Your task to perform on an android device: Check the weather Image 0: 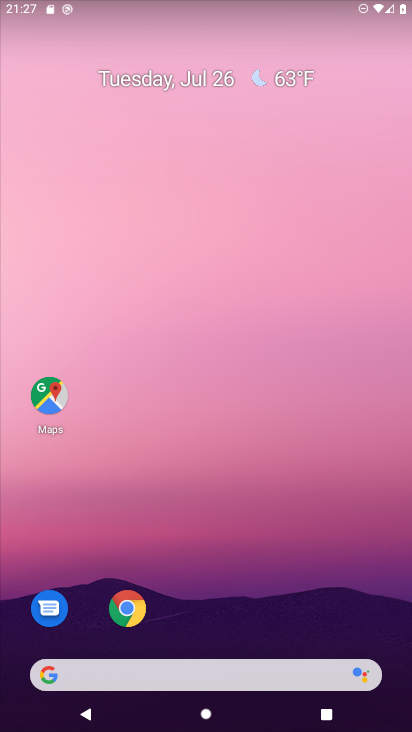
Step 0: click (133, 681)
Your task to perform on an android device: Check the weather Image 1: 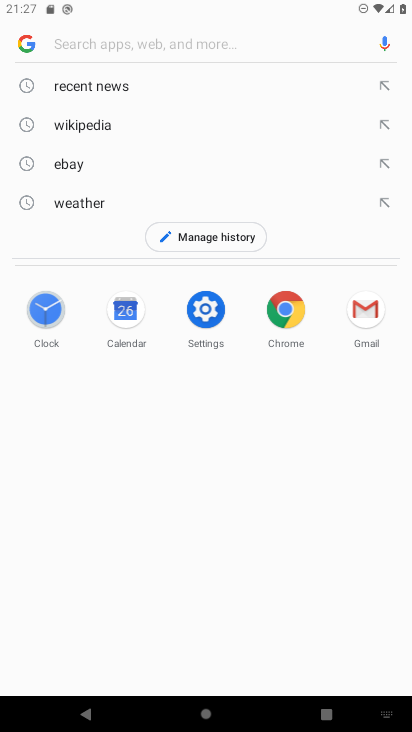
Step 1: click (96, 199)
Your task to perform on an android device: Check the weather Image 2: 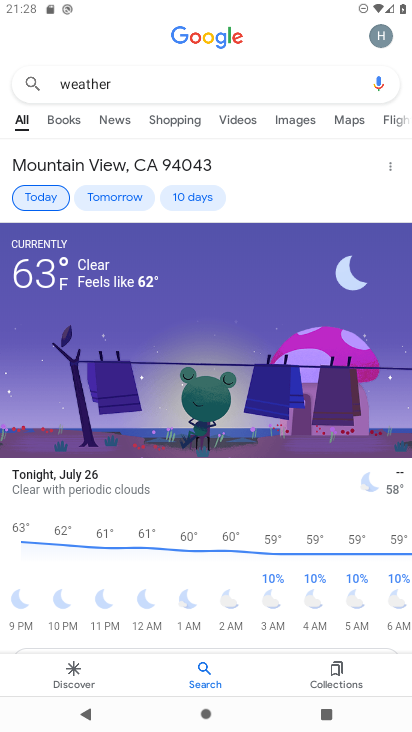
Step 2: task complete